Your task to perform on an android device: Open settings Image 0: 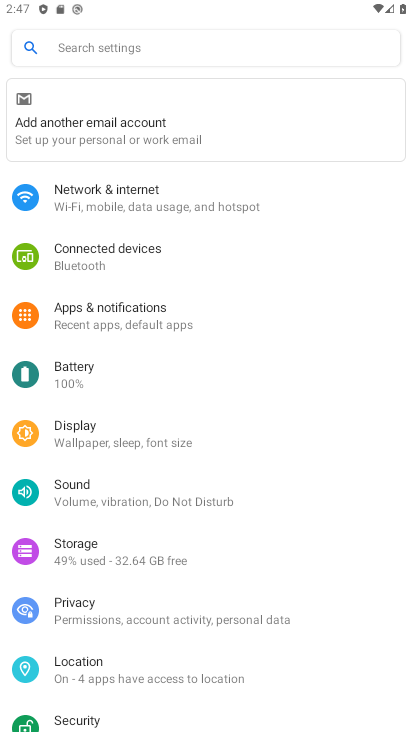
Step 0: press home button
Your task to perform on an android device: Open settings Image 1: 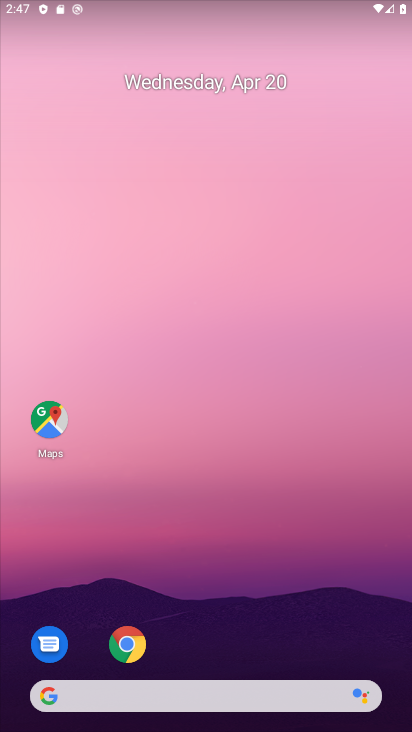
Step 1: drag from (219, 565) to (200, 83)
Your task to perform on an android device: Open settings Image 2: 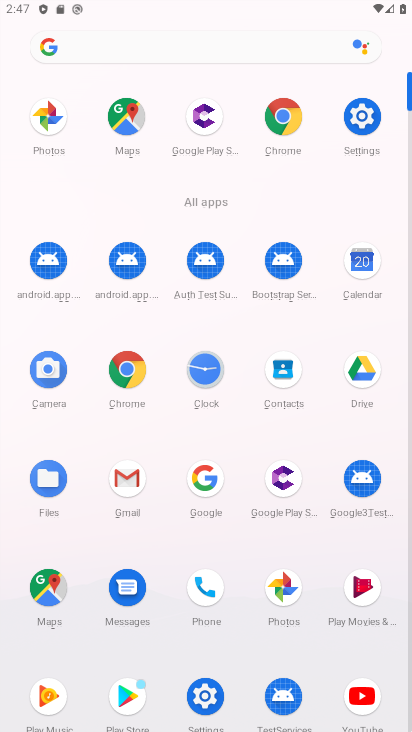
Step 2: click (358, 126)
Your task to perform on an android device: Open settings Image 3: 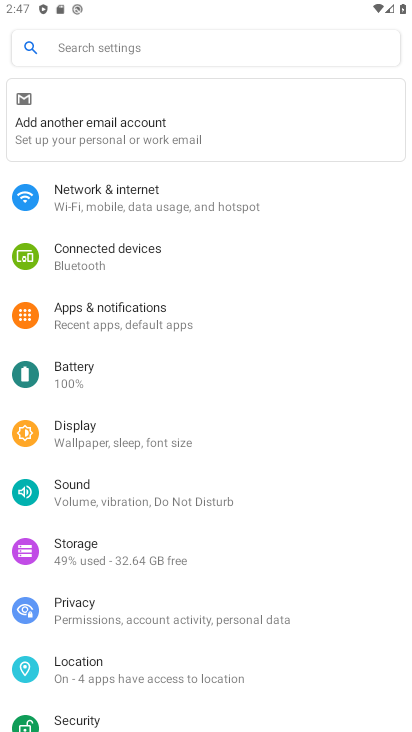
Step 3: task complete